Your task to perform on an android device: turn on translation in the chrome app Image 0: 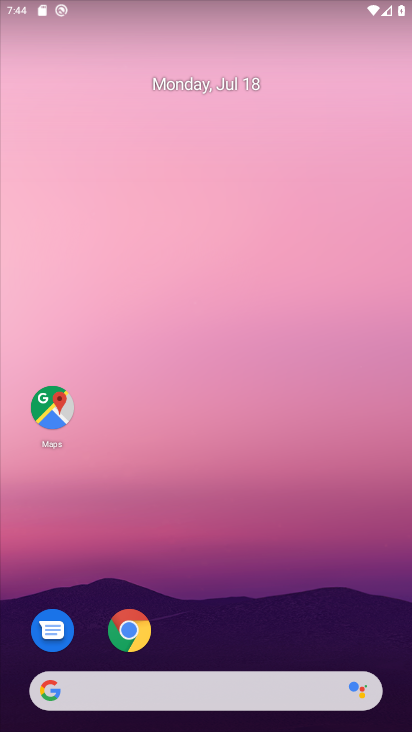
Step 0: drag from (216, 603) to (168, 426)
Your task to perform on an android device: turn on translation in the chrome app Image 1: 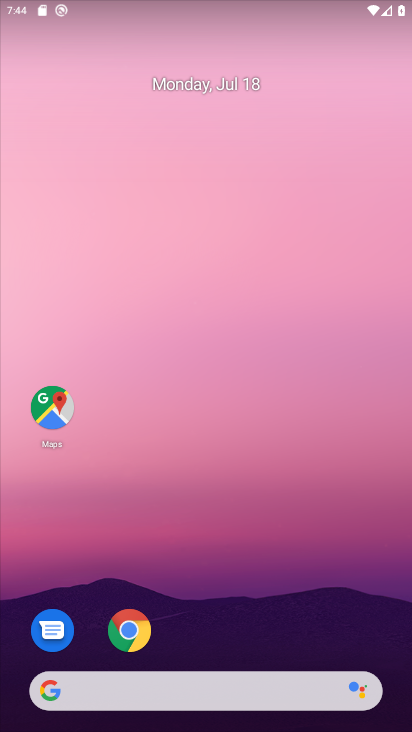
Step 1: drag from (117, 667) to (131, 223)
Your task to perform on an android device: turn on translation in the chrome app Image 2: 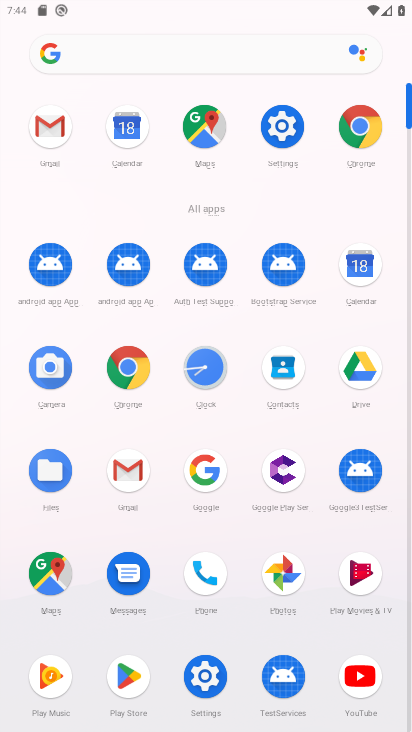
Step 2: click (362, 133)
Your task to perform on an android device: turn on translation in the chrome app Image 3: 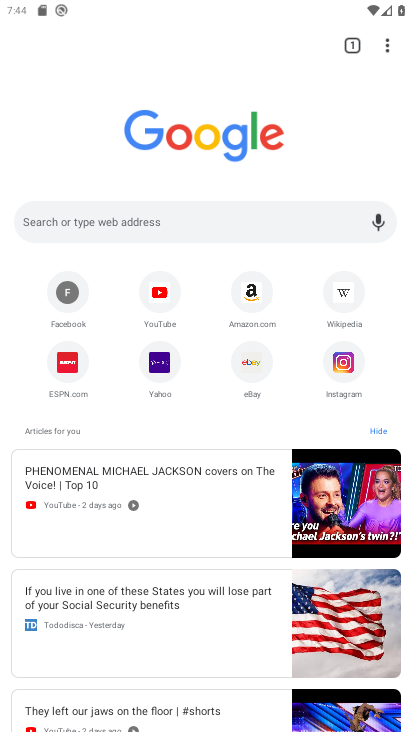
Step 3: drag from (374, 27) to (262, 382)
Your task to perform on an android device: turn on translation in the chrome app Image 4: 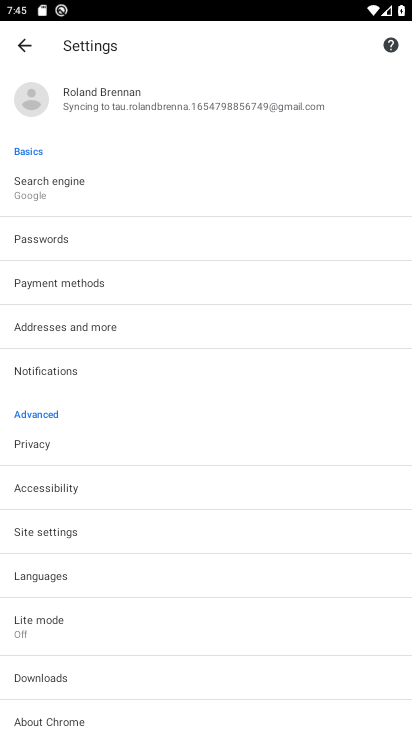
Step 4: click (139, 586)
Your task to perform on an android device: turn on translation in the chrome app Image 5: 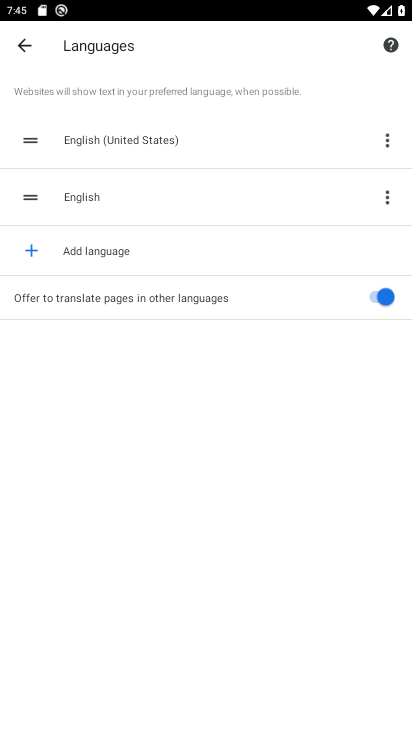
Step 5: task complete